Your task to perform on an android device: toggle priority inbox in the gmail app Image 0: 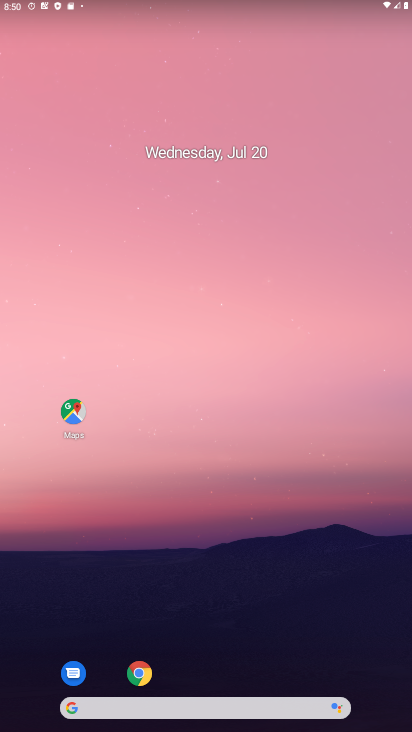
Step 0: drag from (381, 679) to (120, 50)
Your task to perform on an android device: toggle priority inbox in the gmail app Image 1: 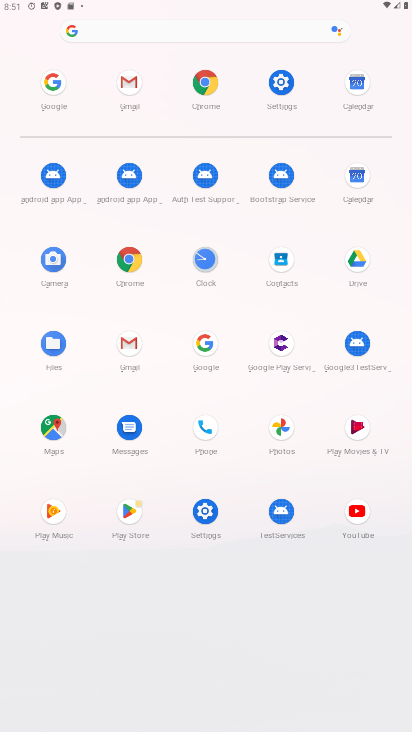
Step 1: click (140, 342)
Your task to perform on an android device: toggle priority inbox in the gmail app Image 2: 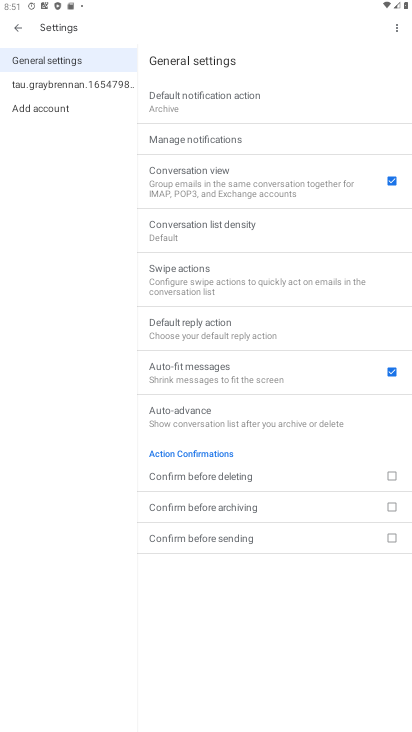
Step 2: click (62, 85)
Your task to perform on an android device: toggle priority inbox in the gmail app Image 3: 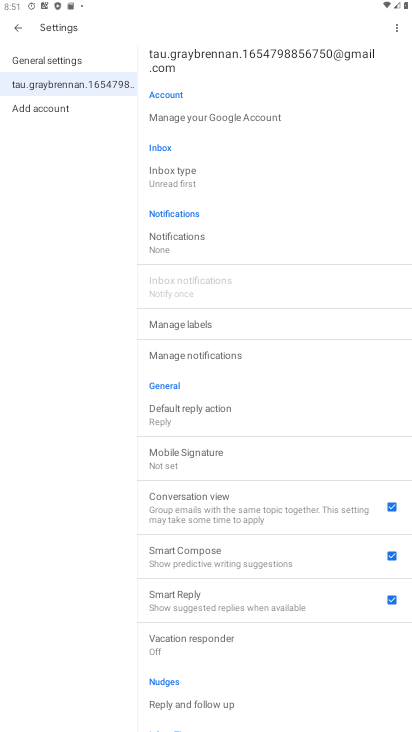
Step 3: click (197, 185)
Your task to perform on an android device: toggle priority inbox in the gmail app Image 4: 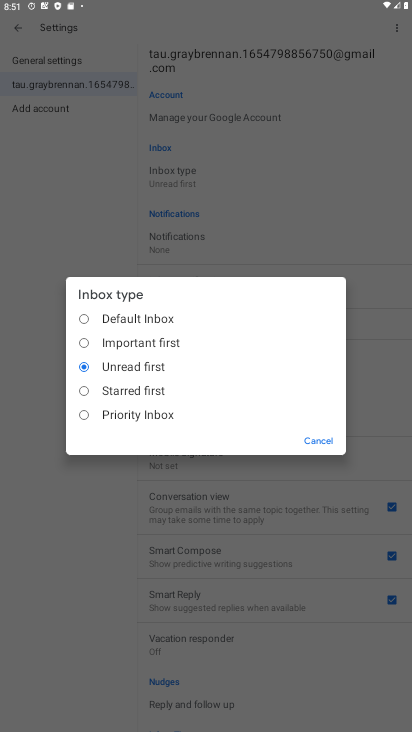
Step 4: click (101, 319)
Your task to perform on an android device: toggle priority inbox in the gmail app Image 5: 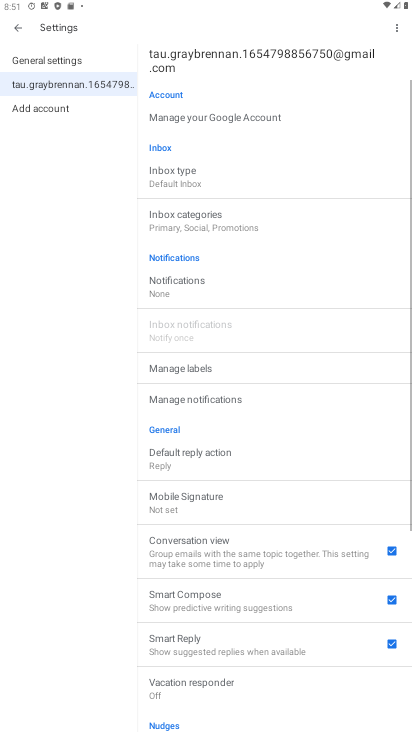
Step 5: task complete